Your task to perform on an android device: Add usb-b to the cart on amazon.com Image 0: 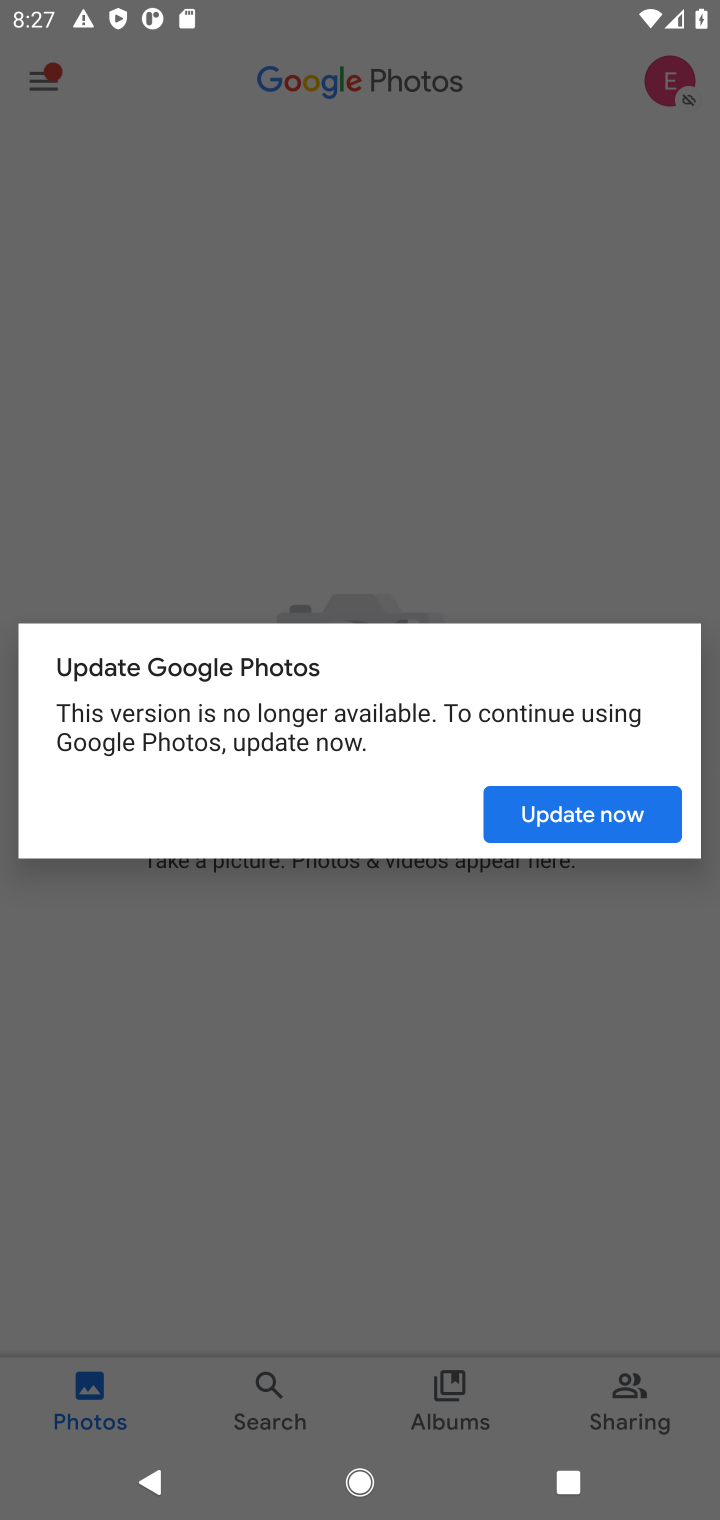
Step 0: press home button
Your task to perform on an android device: Add usb-b to the cart on amazon.com Image 1: 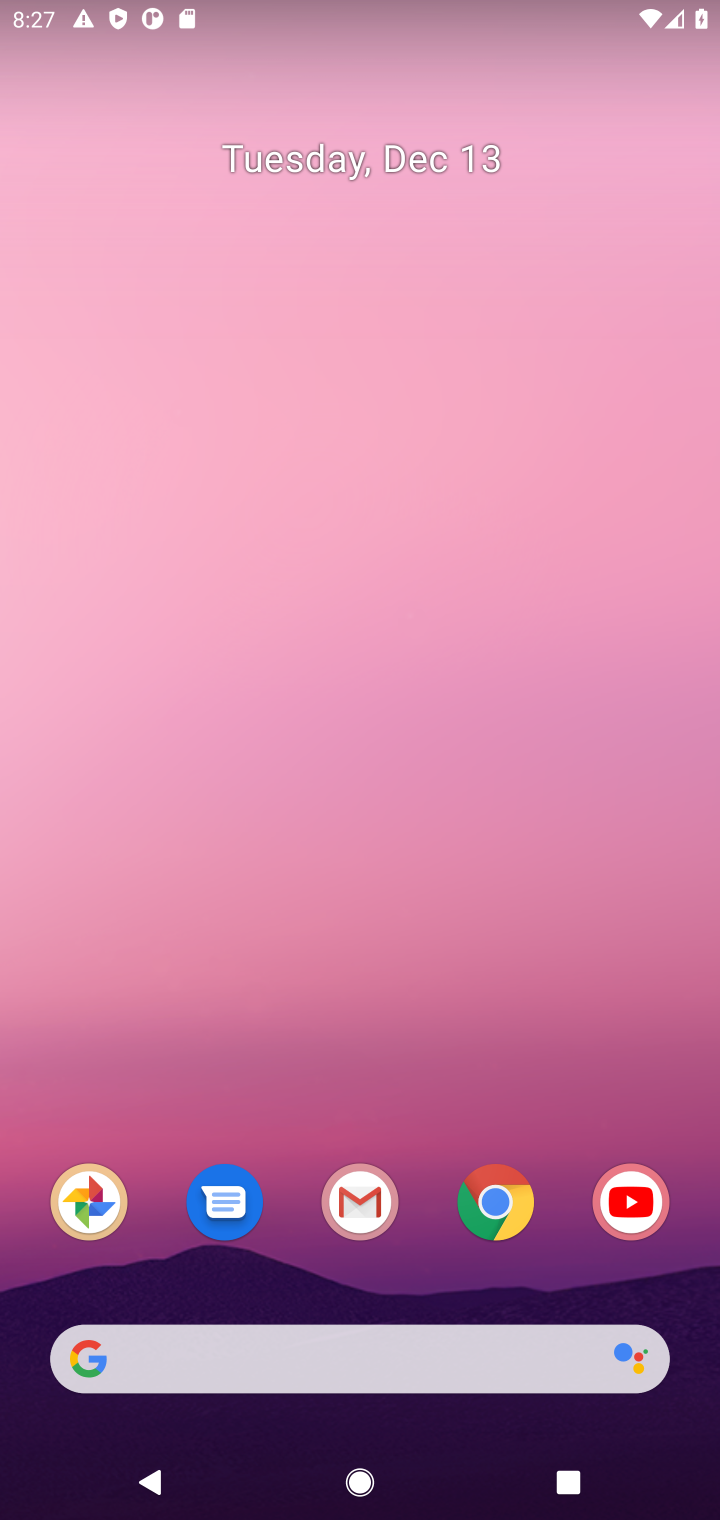
Step 1: click (501, 1195)
Your task to perform on an android device: Add usb-b to the cart on amazon.com Image 2: 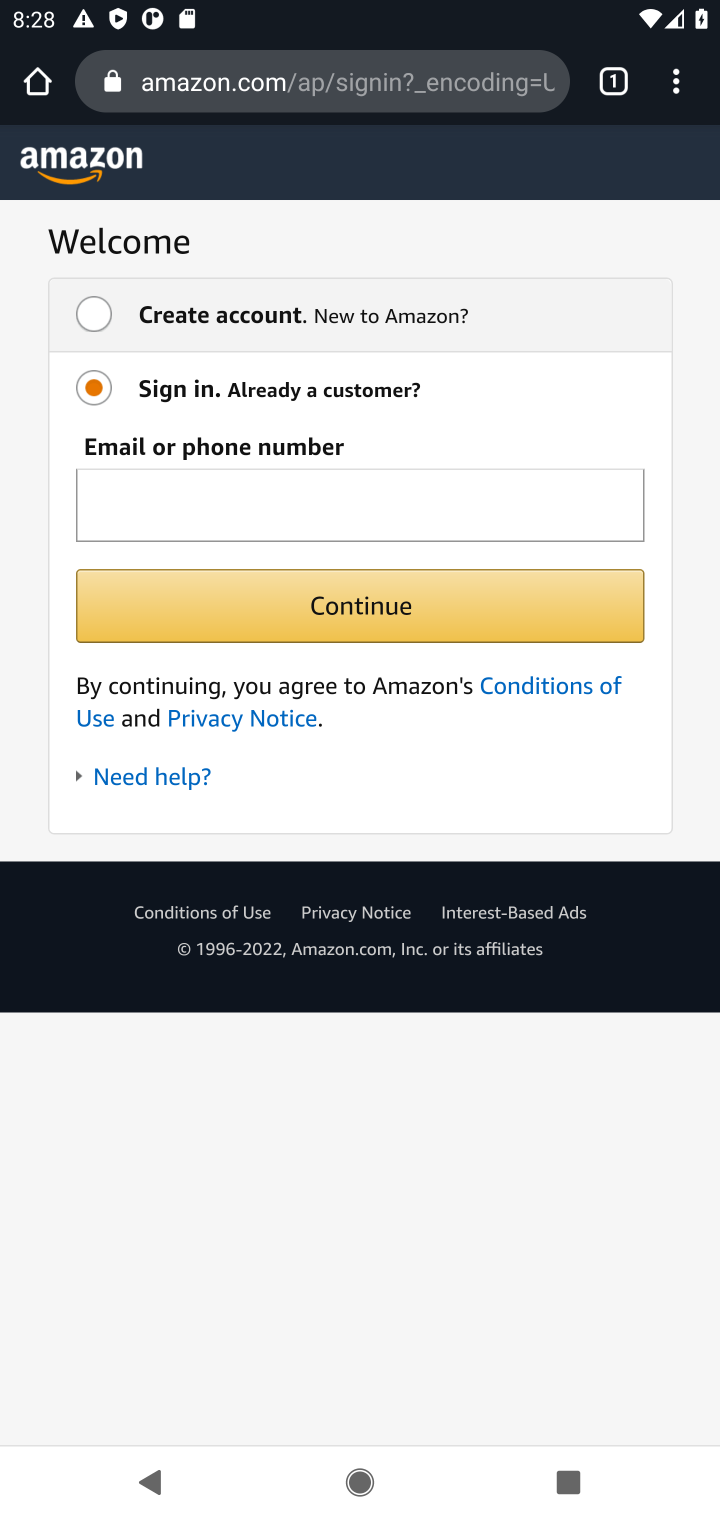
Step 2: click (343, 602)
Your task to perform on an android device: Add usb-b to the cart on amazon.com Image 3: 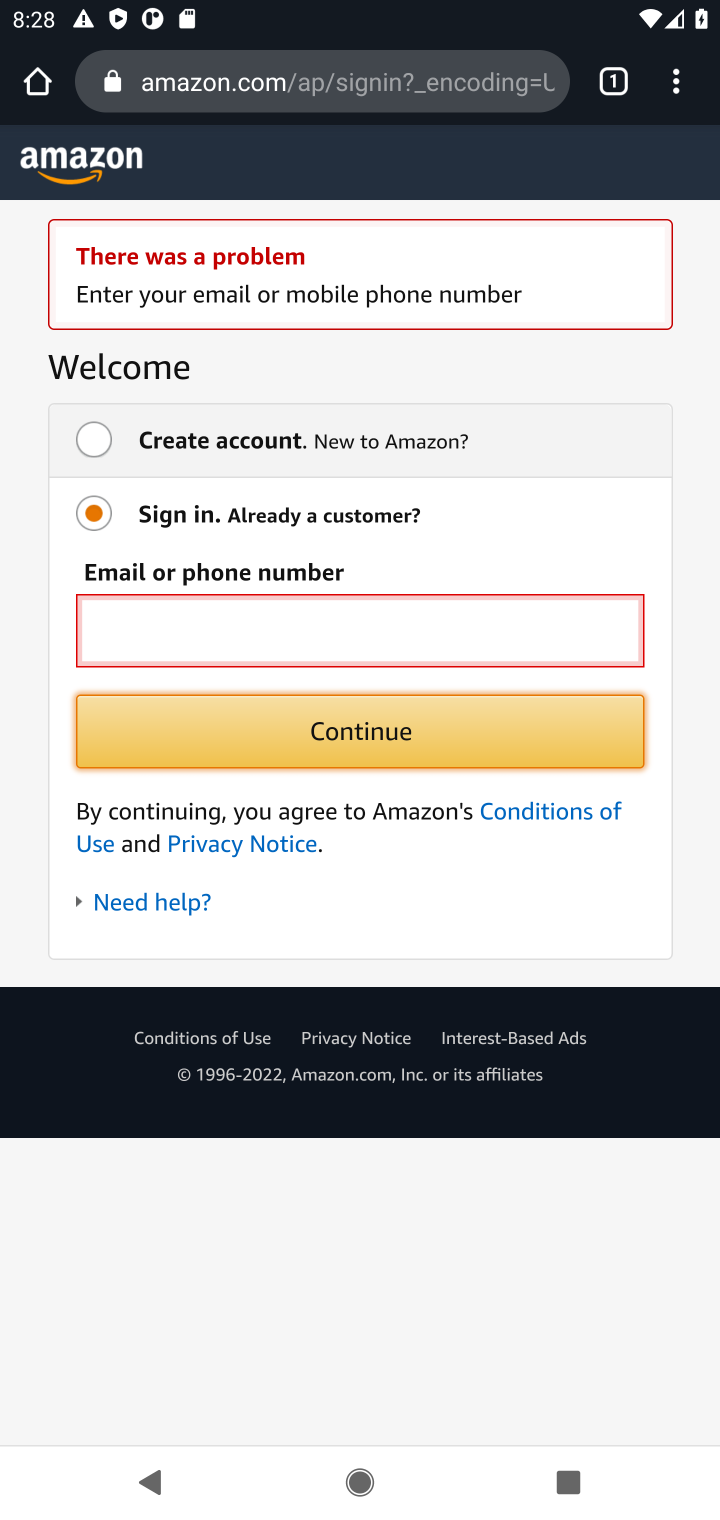
Step 3: click (438, 97)
Your task to perform on an android device: Add usb-b to the cart on amazon.com Image 4: 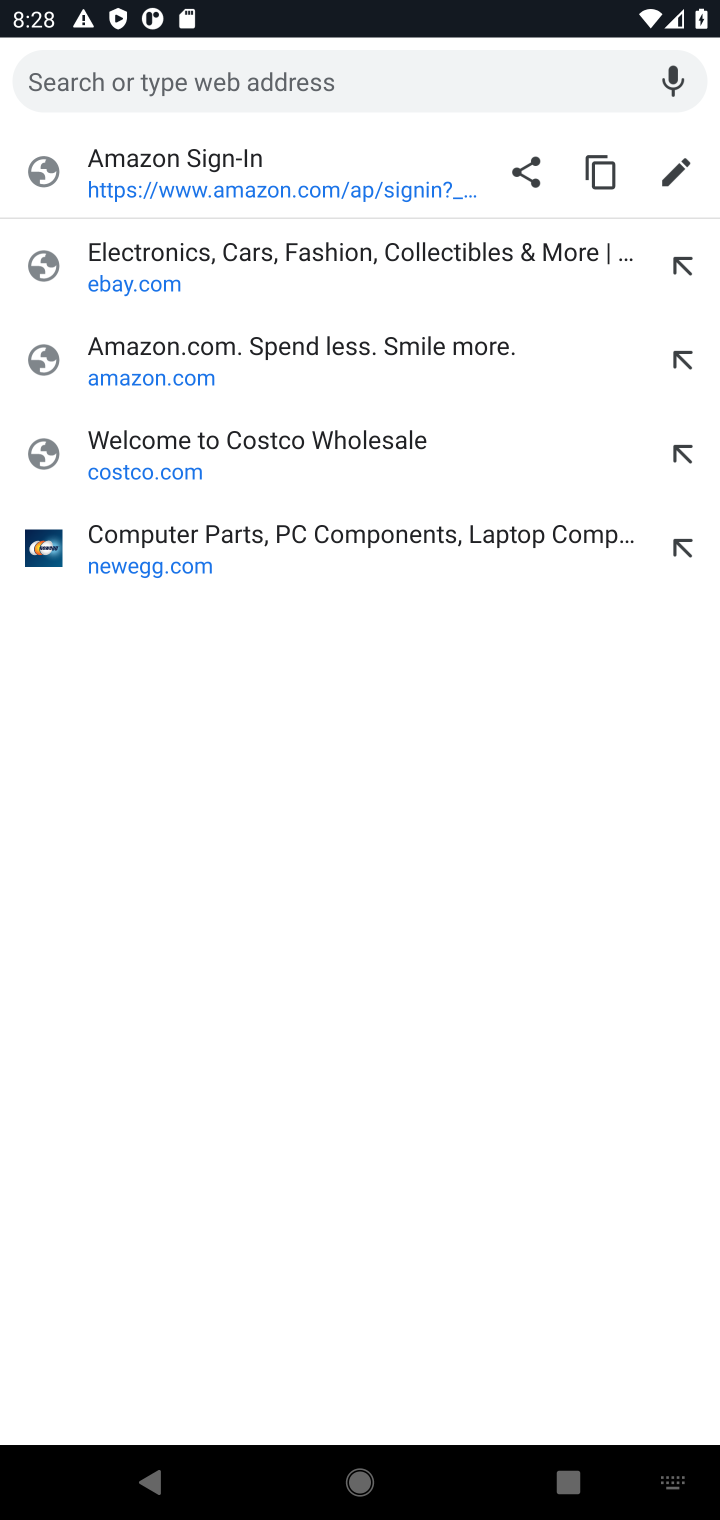
Step 4: click (183, 363)
Your task to perform on an android device: Add usb-b to the cart on amazon.com Image 5: 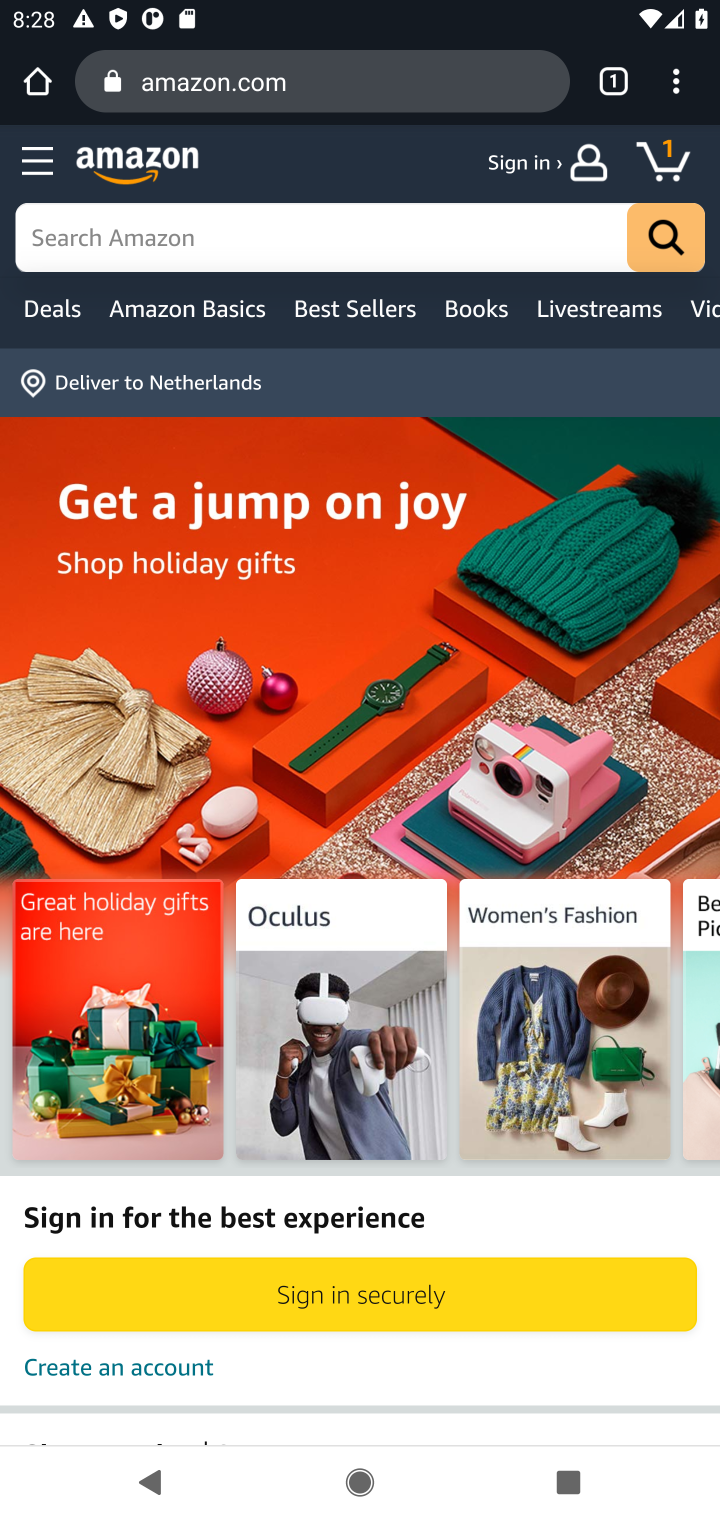
Step 5: click (402, 235)
Your task to perform on an android device: Add usb-b to the cart on amazon.com Image 6: 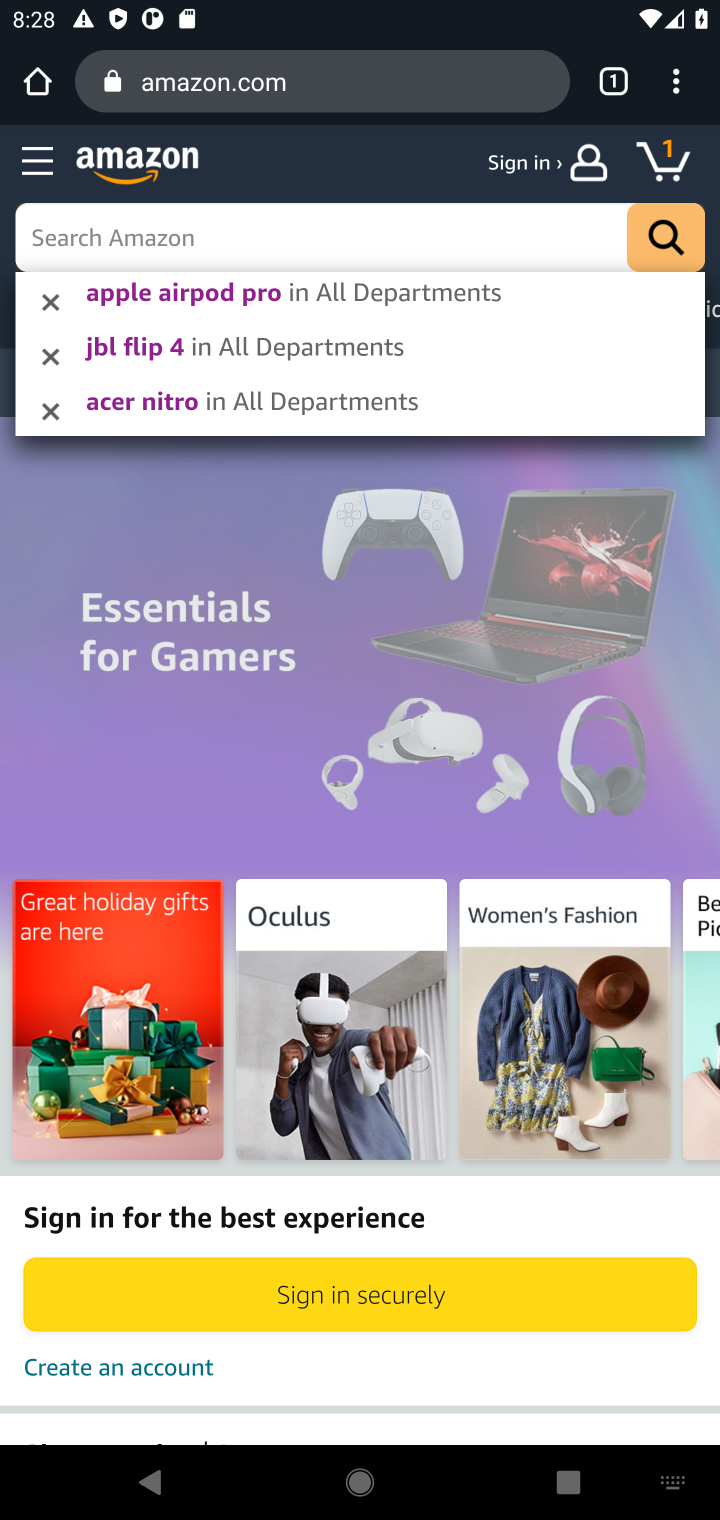
Step 6: type "usb-b"
Your task to perform on an android device: Add usb-b to the cart on amazon.com Image 7: 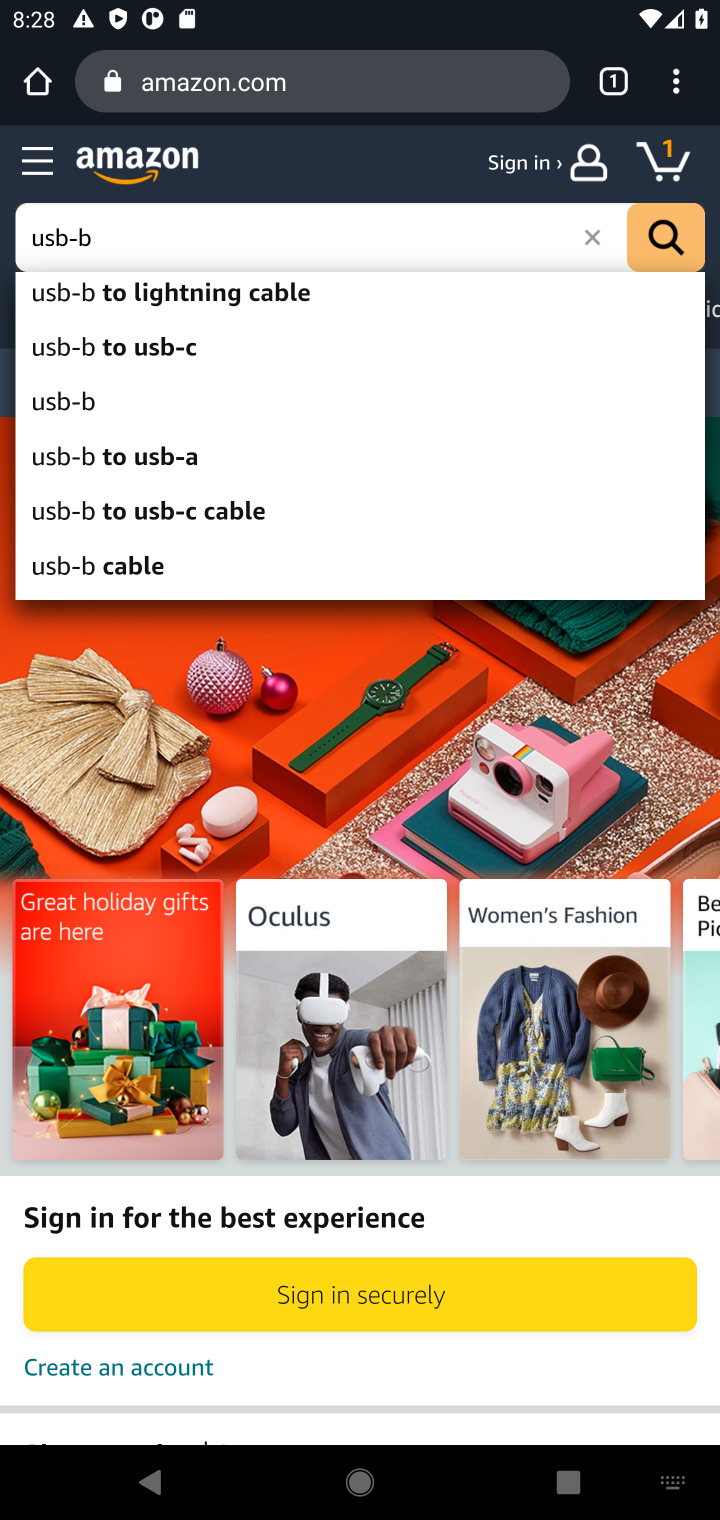
Step 7: click (668, 240)
Your task to perform on an android device: Add usb-b to the cart on amazon.com Image 8: 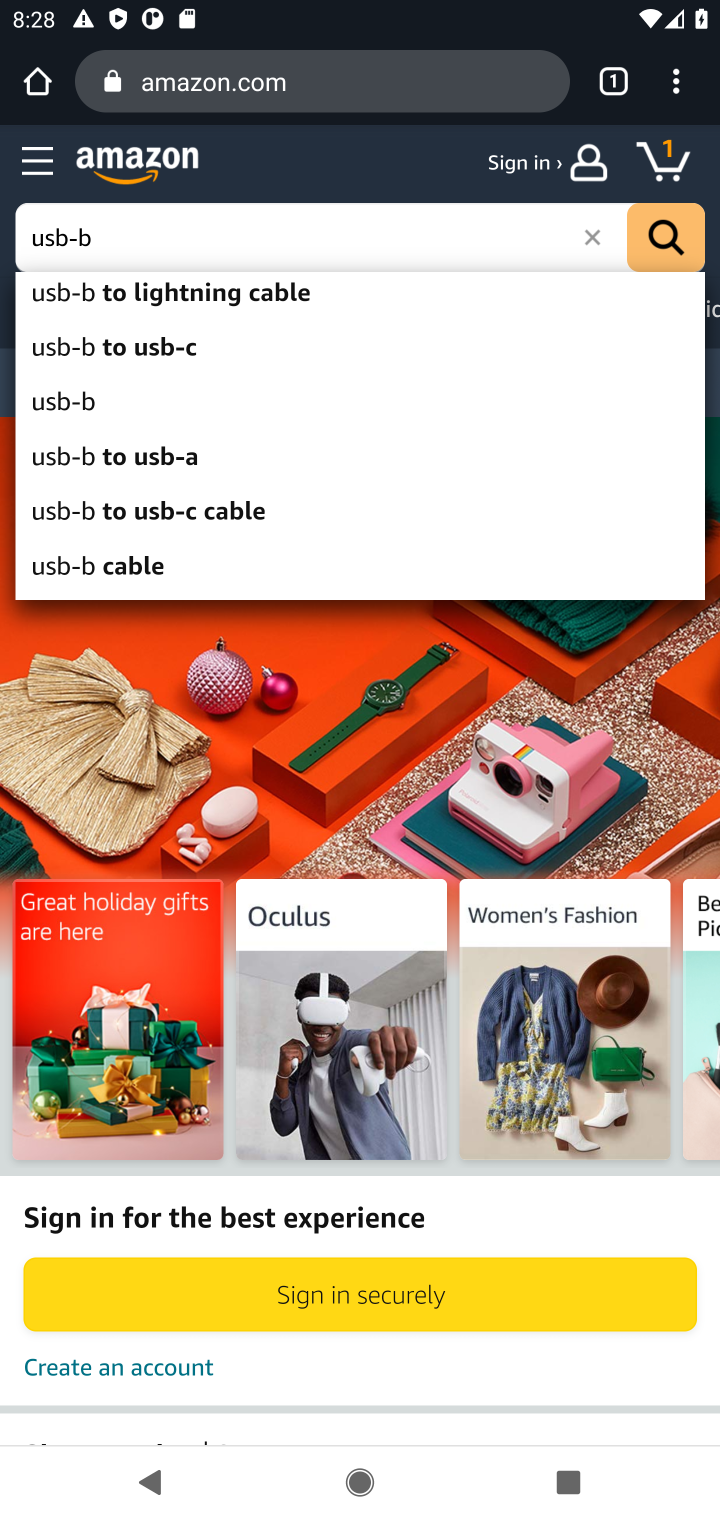
Step 8: click (684, 228)
Your task to perform on an android device: Add usb-b to the cart on amazon.com Image 9: 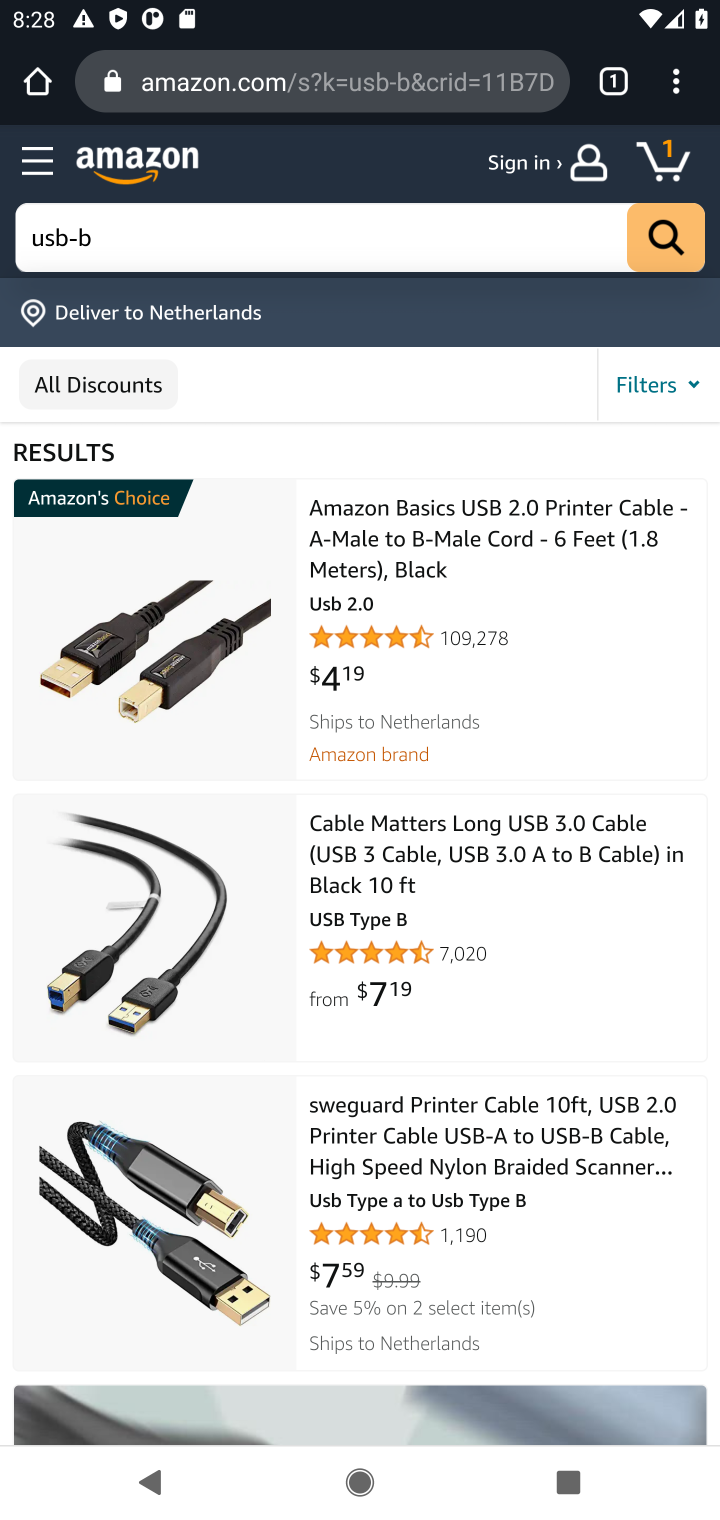
Step 9: drag from (527, 1005) to (606, 627)
Your task to perform on an android device: Add usb-b to the cart on amazon.com Image 10: 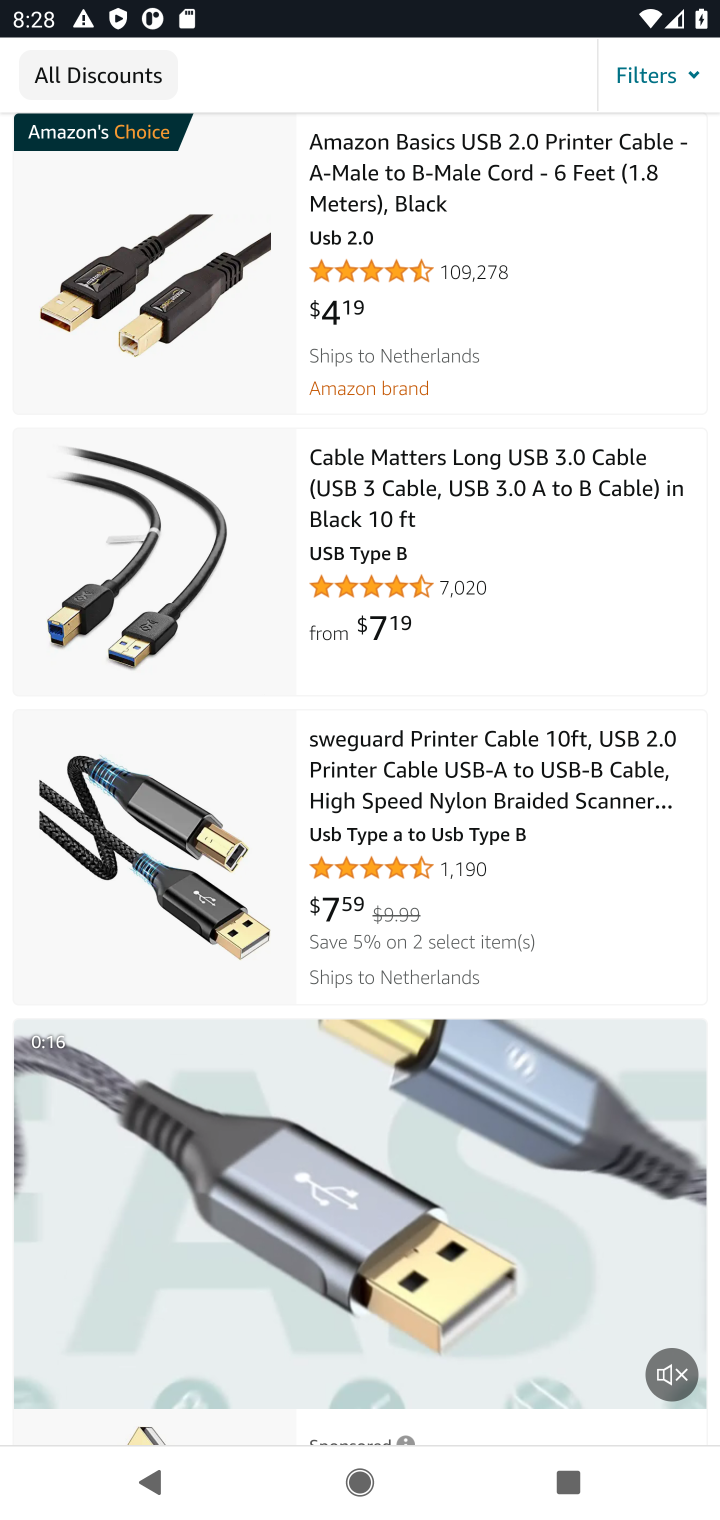
Step 10: drag from (578, 1227) to (640, 704)
Your task to perform on an android device: Add usb-b to the cart on amazon.com Image 11: 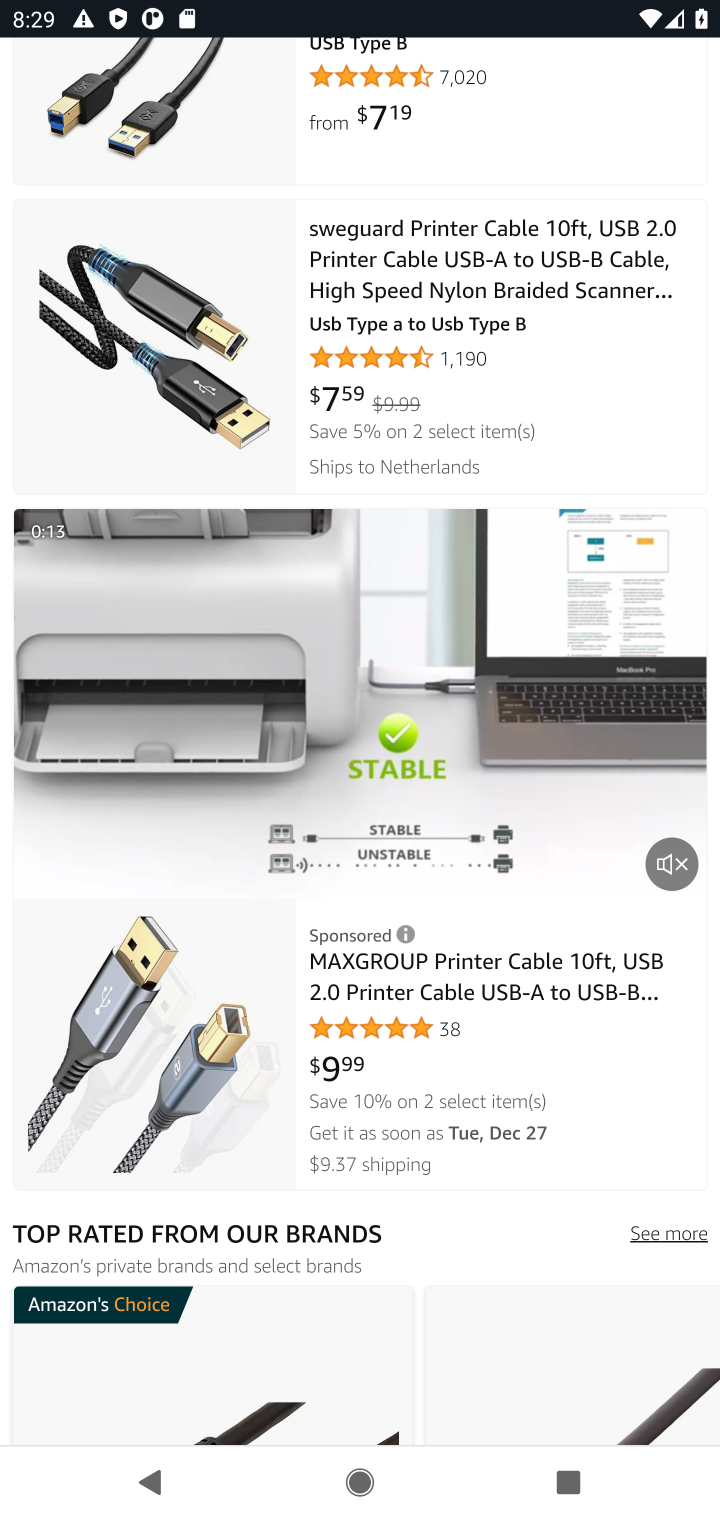
Step 11: drag from (505, 1228) to (538, 854)
Your task to perform on an android device: Add usb-b to the cart on amazon.com Image 12: 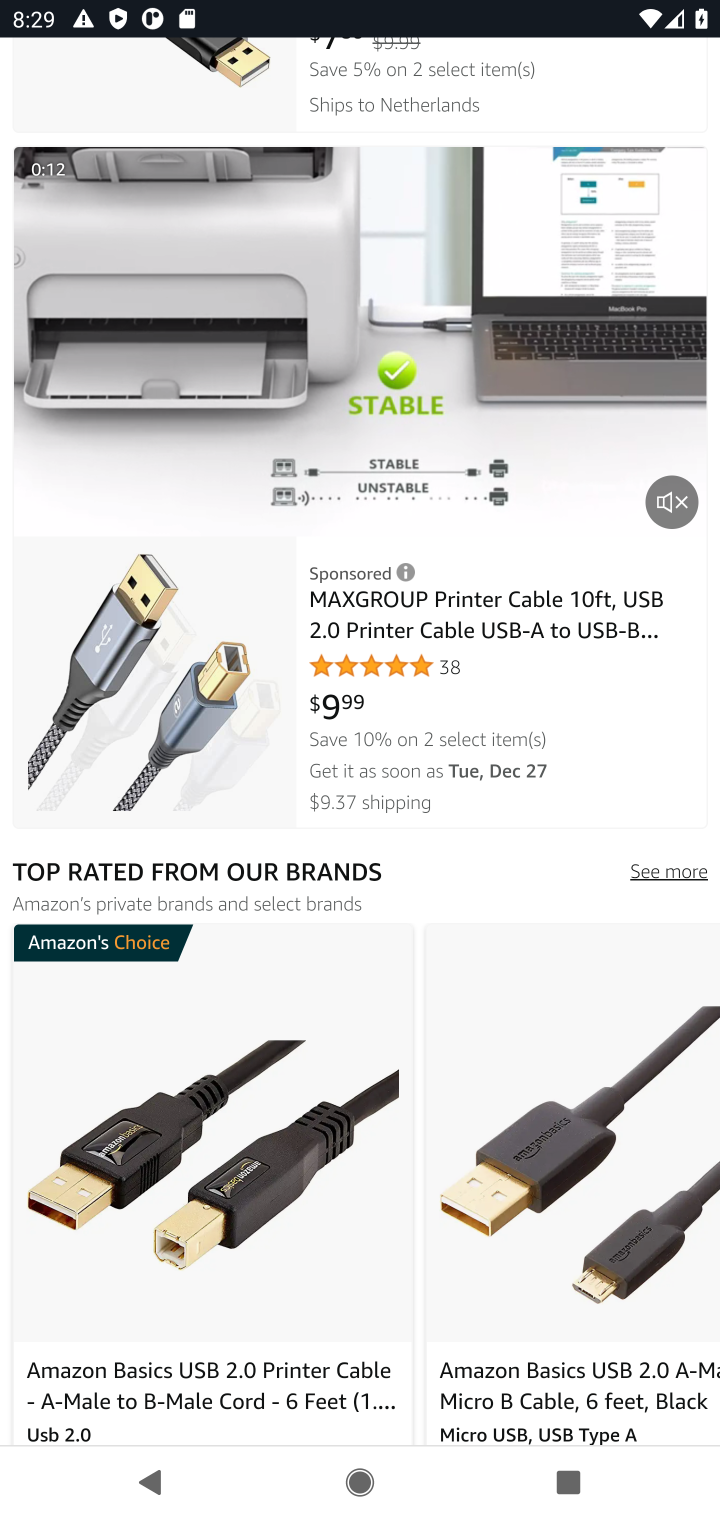
Step 12: drag from (516, 990) to (512, 1138)
Your task to perform on an android device: Add usb-b to the cart on amazon.com Image 13: 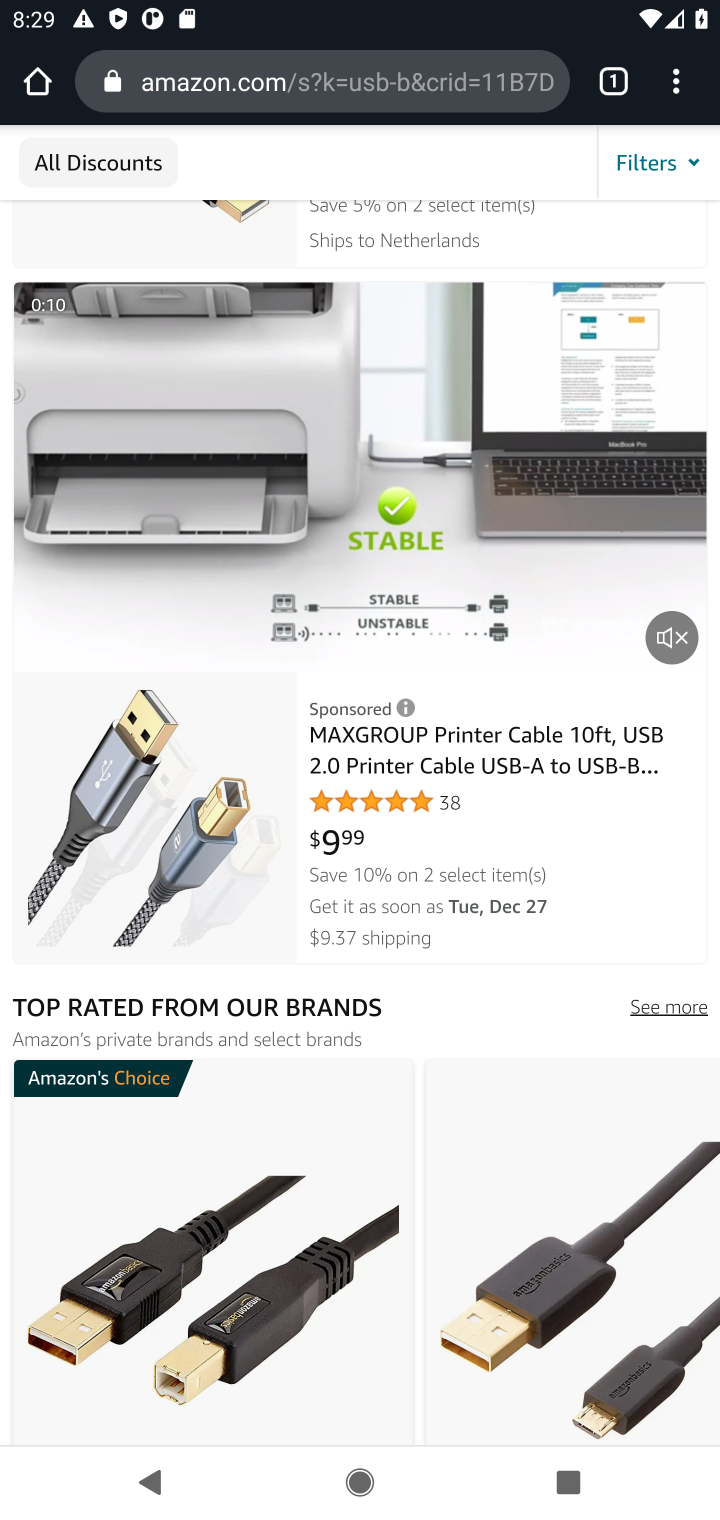
Step 13: drag from (481, 240) to (448, 1060)
Your task to perform on an android device: Add usb-b to the cart on amazon.com Image 14: 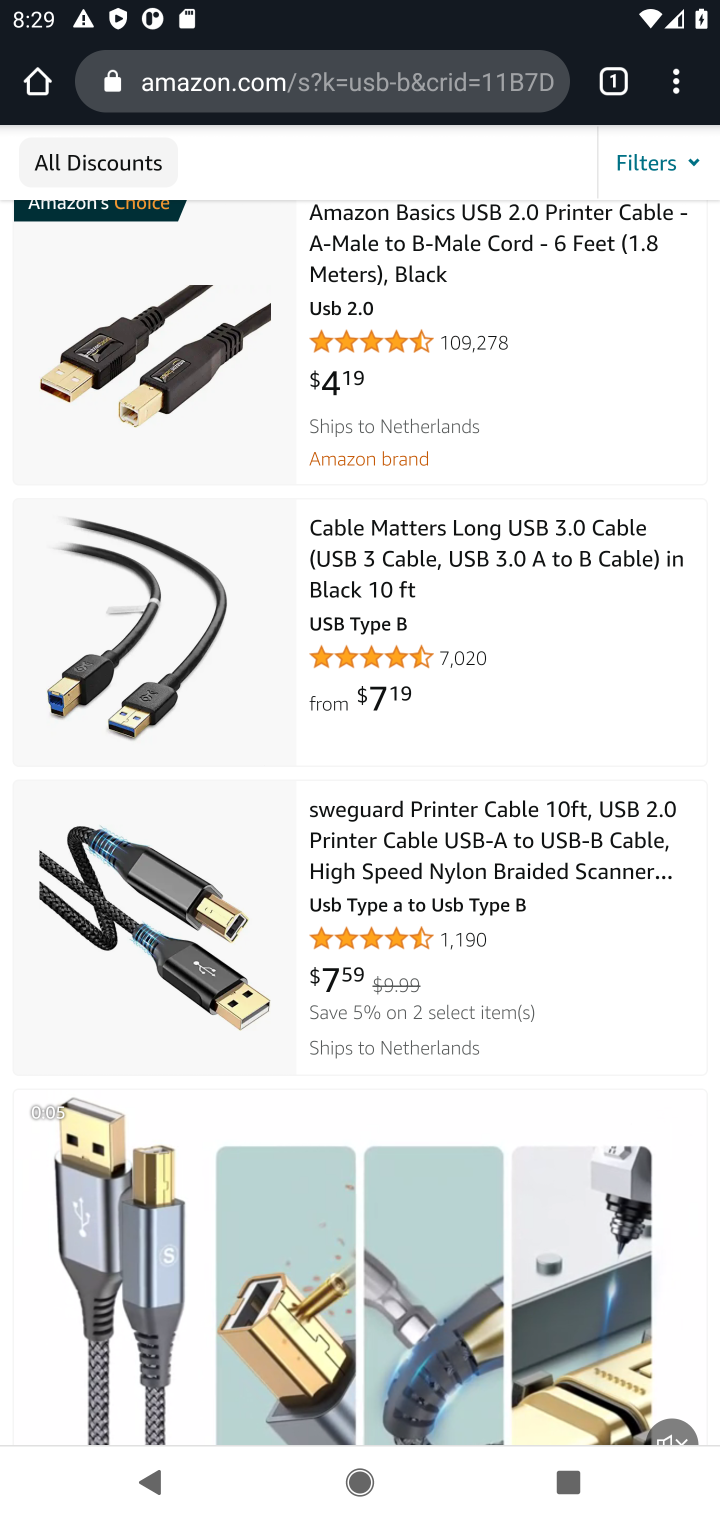
Step 14: drag from (554, 452) to (526, 829)
Your task to perform on an android device: Add usb-b to the cart on amazon.com Image 15: 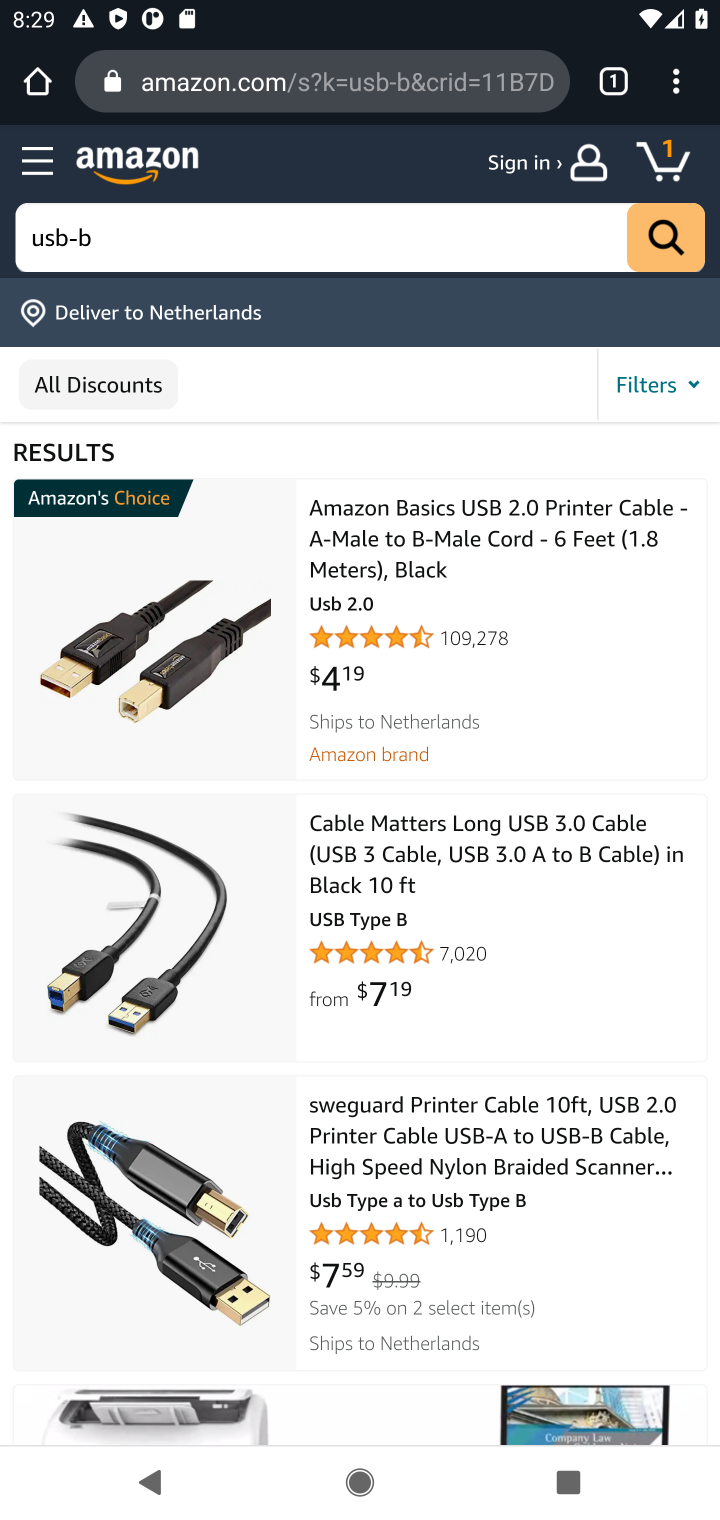
Step 15: click (370, 561)
Your task to perform on an android device: Add usb-b to the cart on amazon.com Image 16: 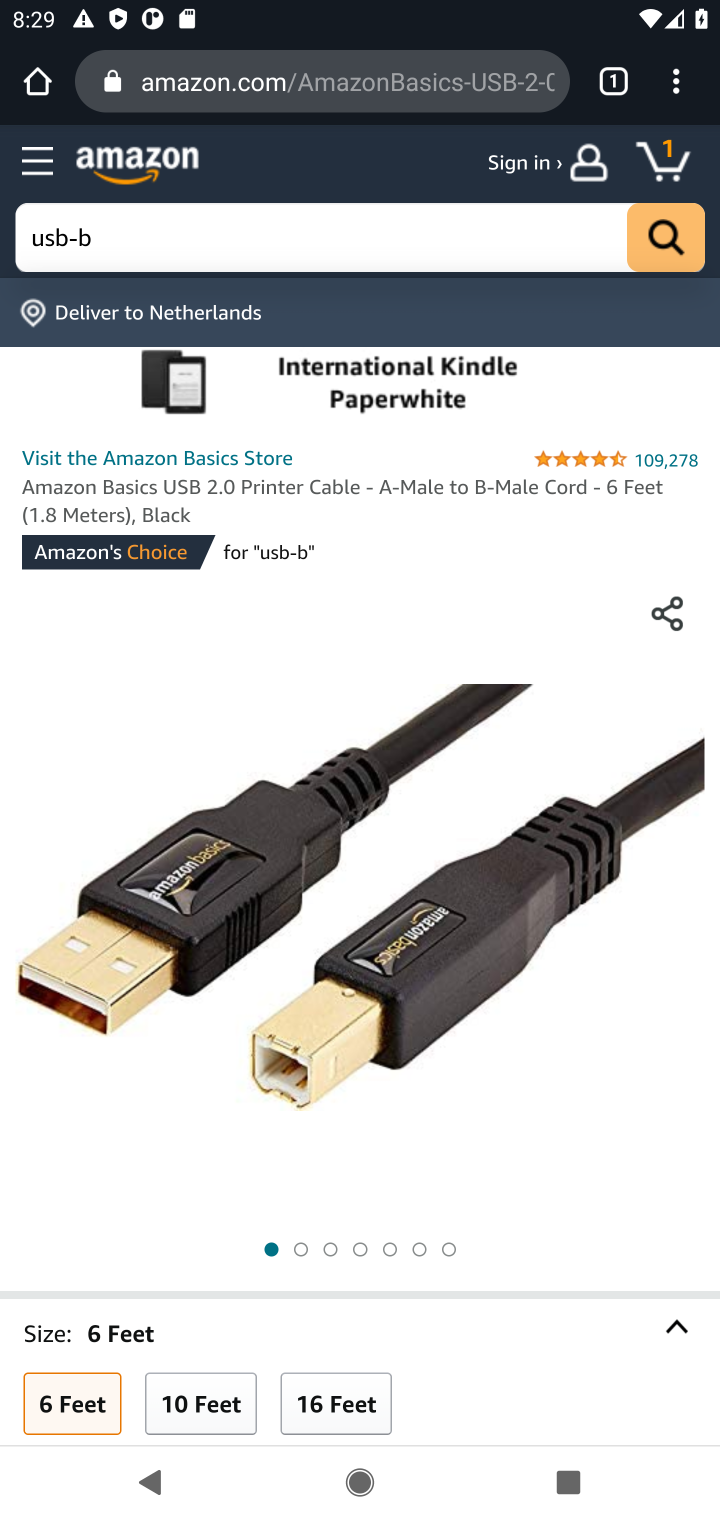
Step 16: drag from (635, 1116) to (664, 501)
Your task to perform on an android device: Add usb-b to the cart on amazon.com Image 17: 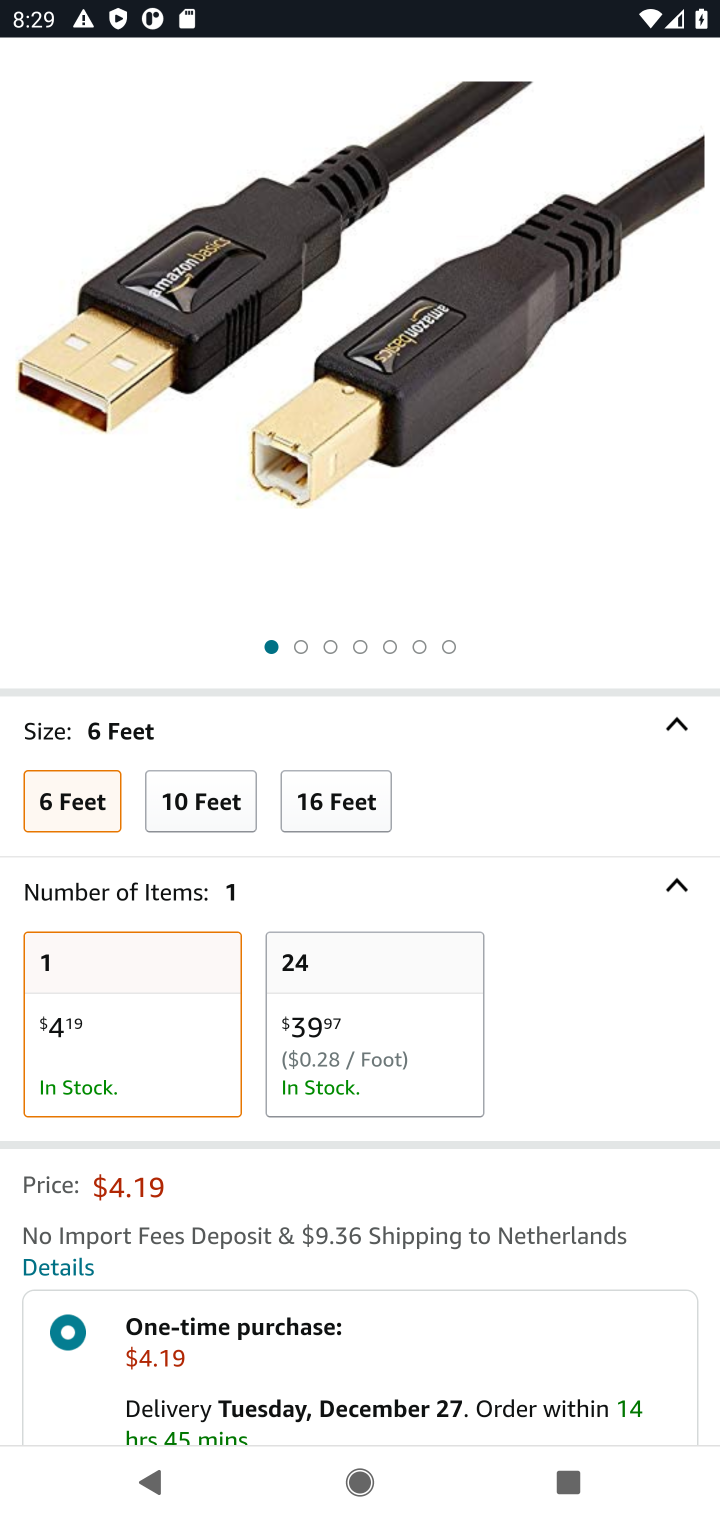
Step 17: drag from (515, 1228) to (575, 328)
Your task to perform on an android device: Add usb-b to the cart on amazon.com Image 18: 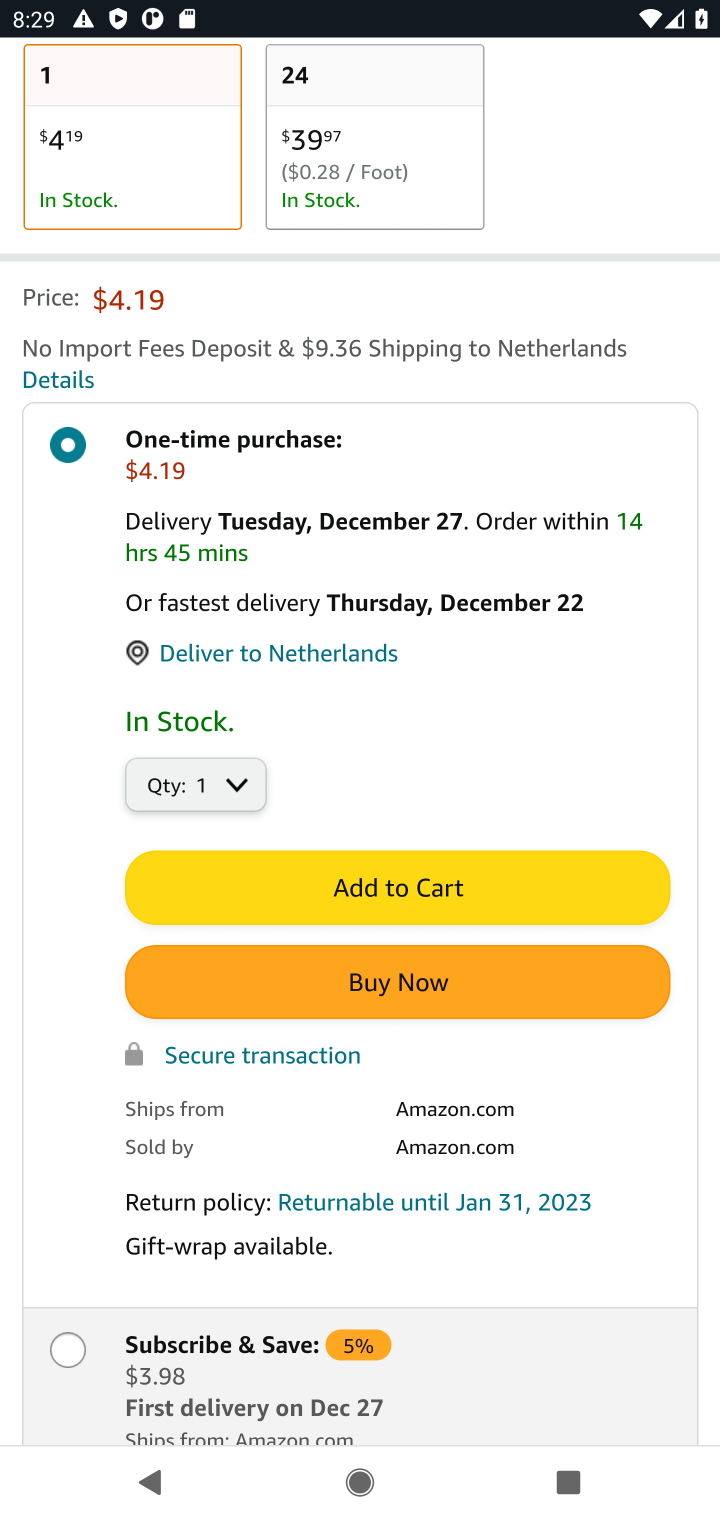
Step 18: click (477, 889)
Your task to perform on an android device: Add usb-b to the cart on amazon.com Image 19: 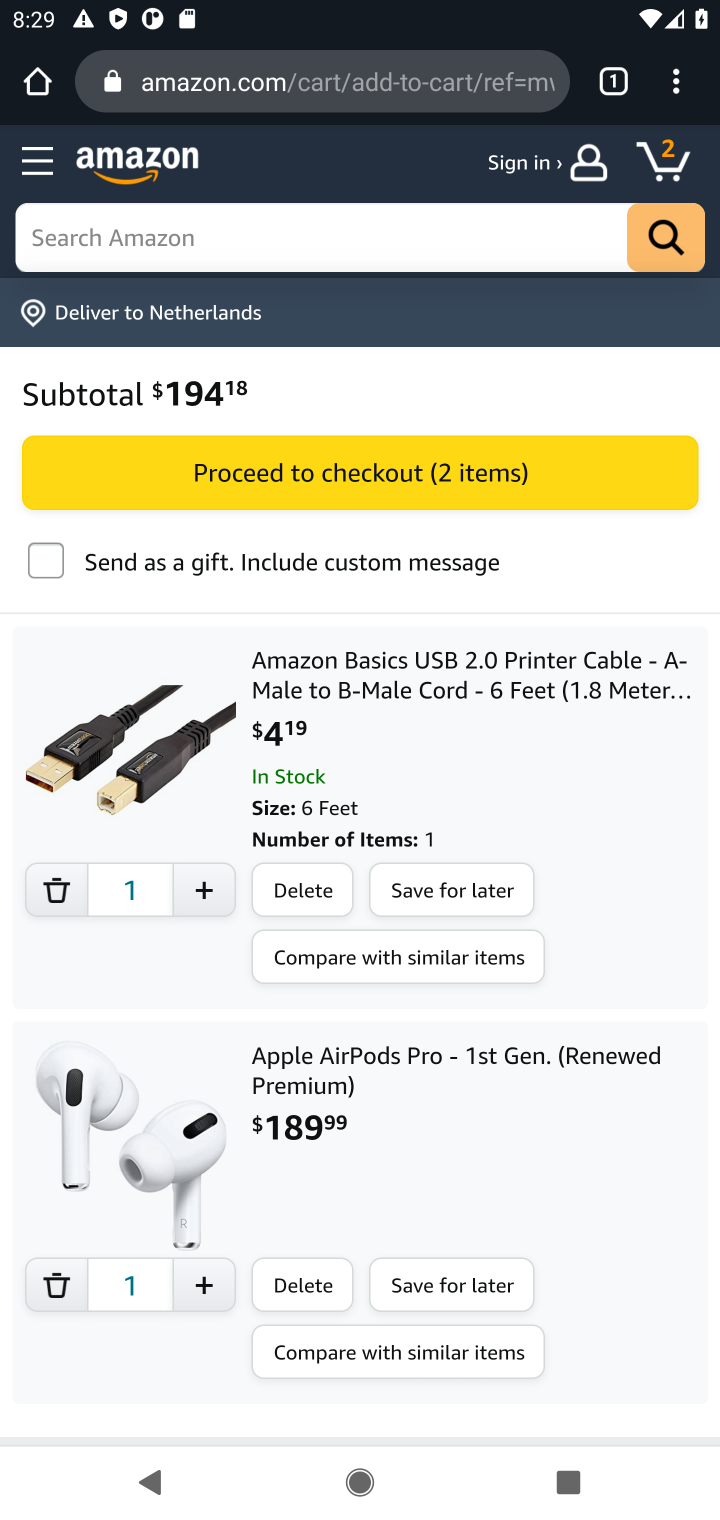
Step 19: task complete